Your task to perform on an android device: open device folders in google photos Image 0: 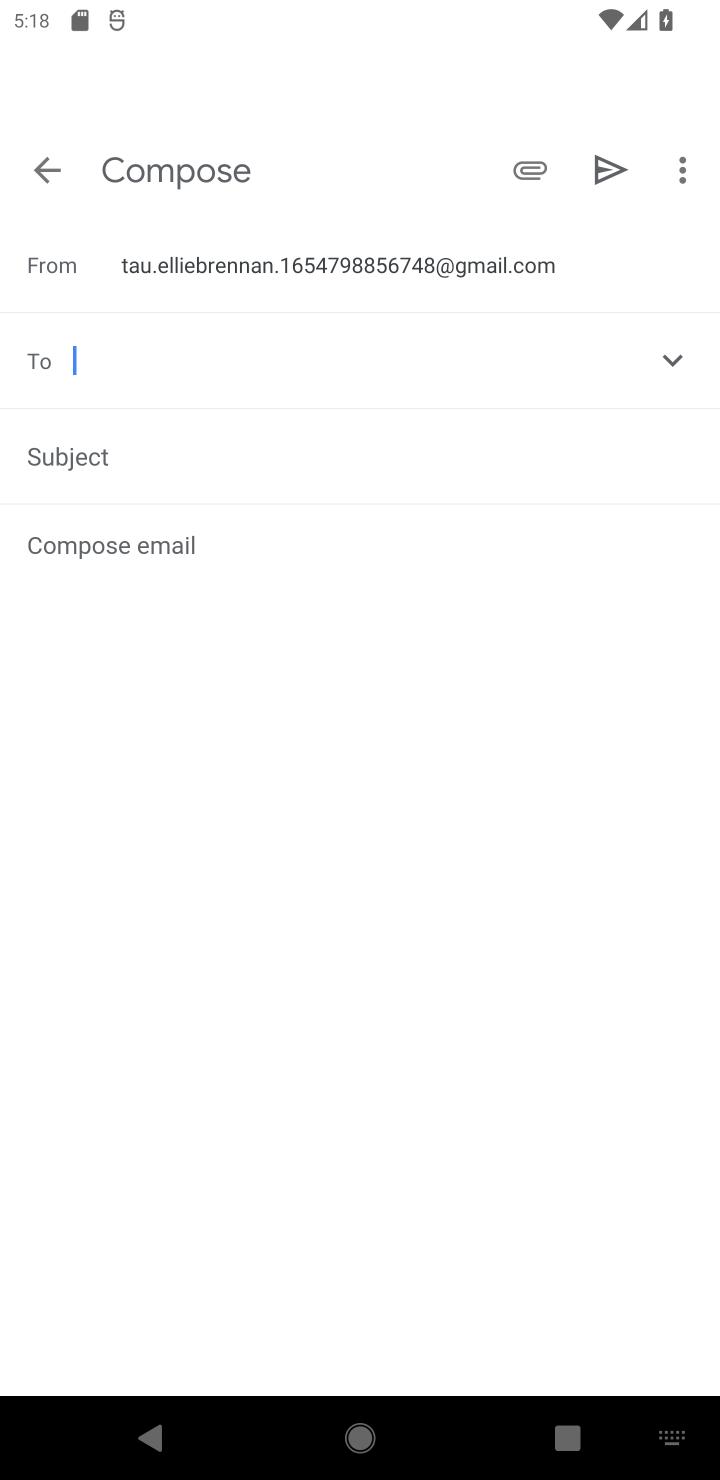
Step 0: press home button
Your task to perform on an android device: open device folders in google photos Image 1: 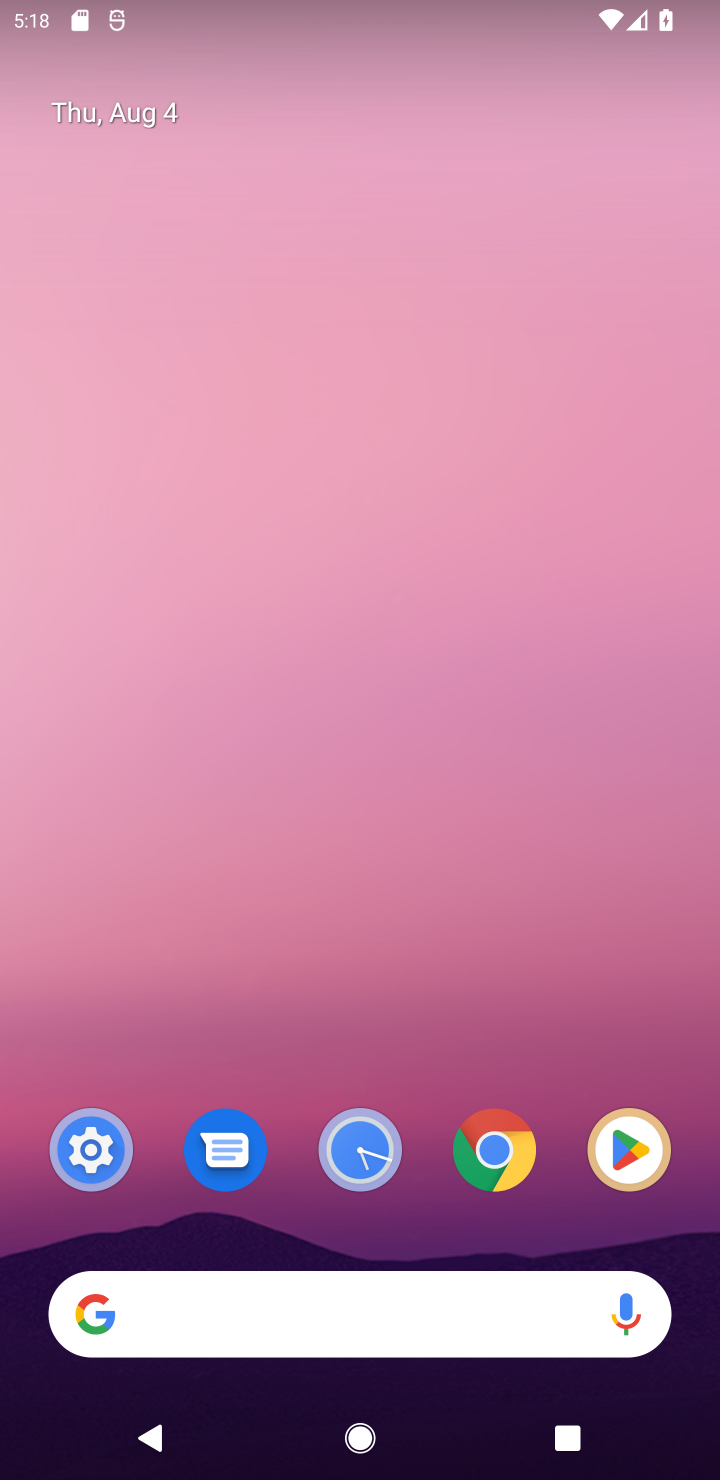
Step 1: drag from (246, 1194) to (284, 0)
Your task to perform on an android device: open device folders in google photos Image 2: 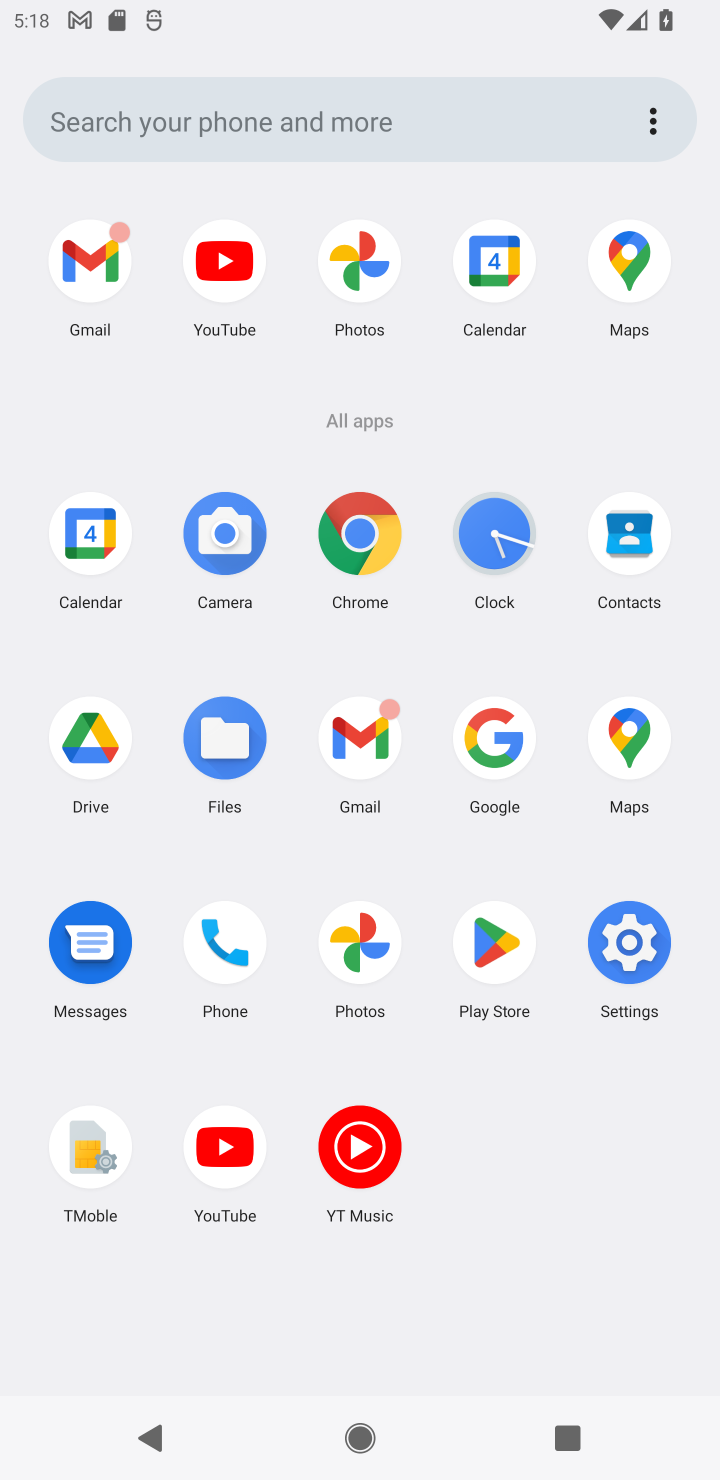
Step 2: click (380, 980)
Your task to perform on an android device: open device folders in google photos Image 3: 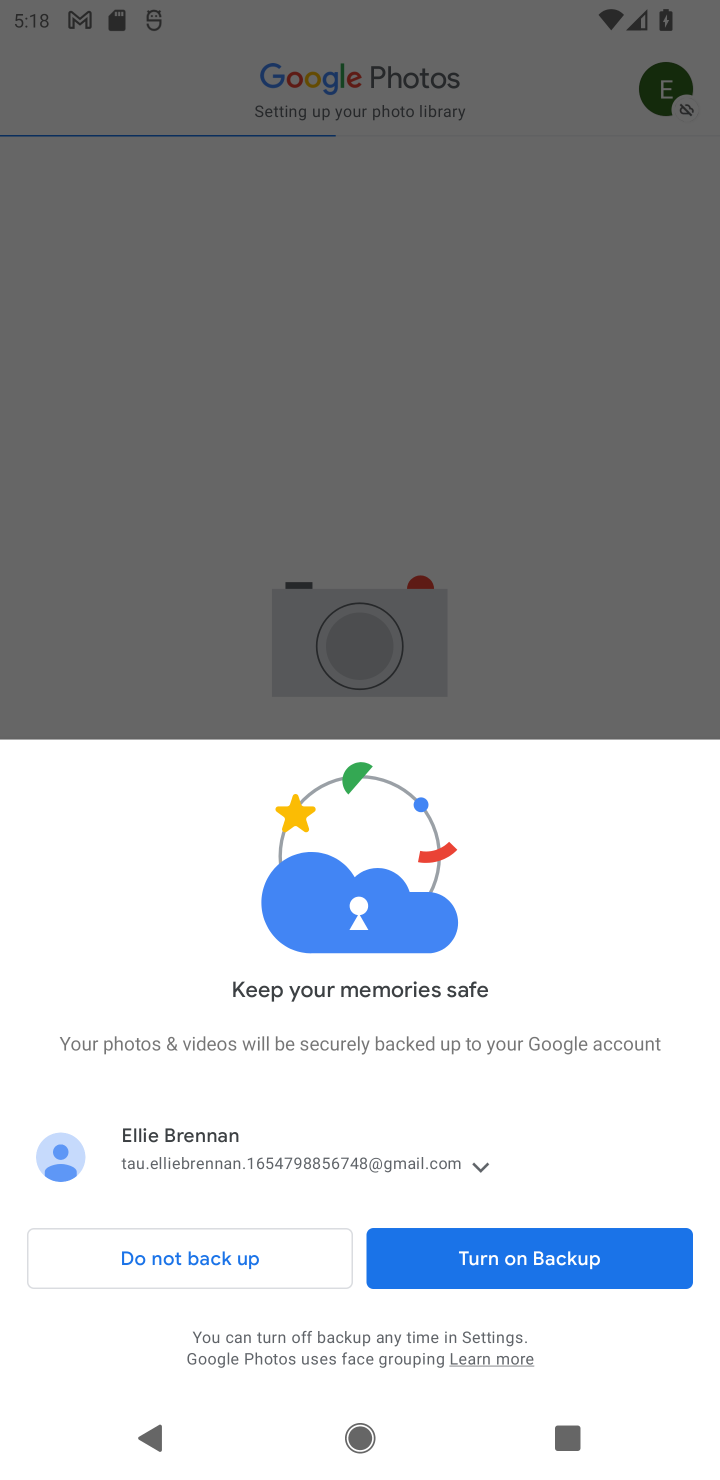
Step 3: click (272, 1251)
Your task to perform on an android device: open device folders in google photos Image 4: 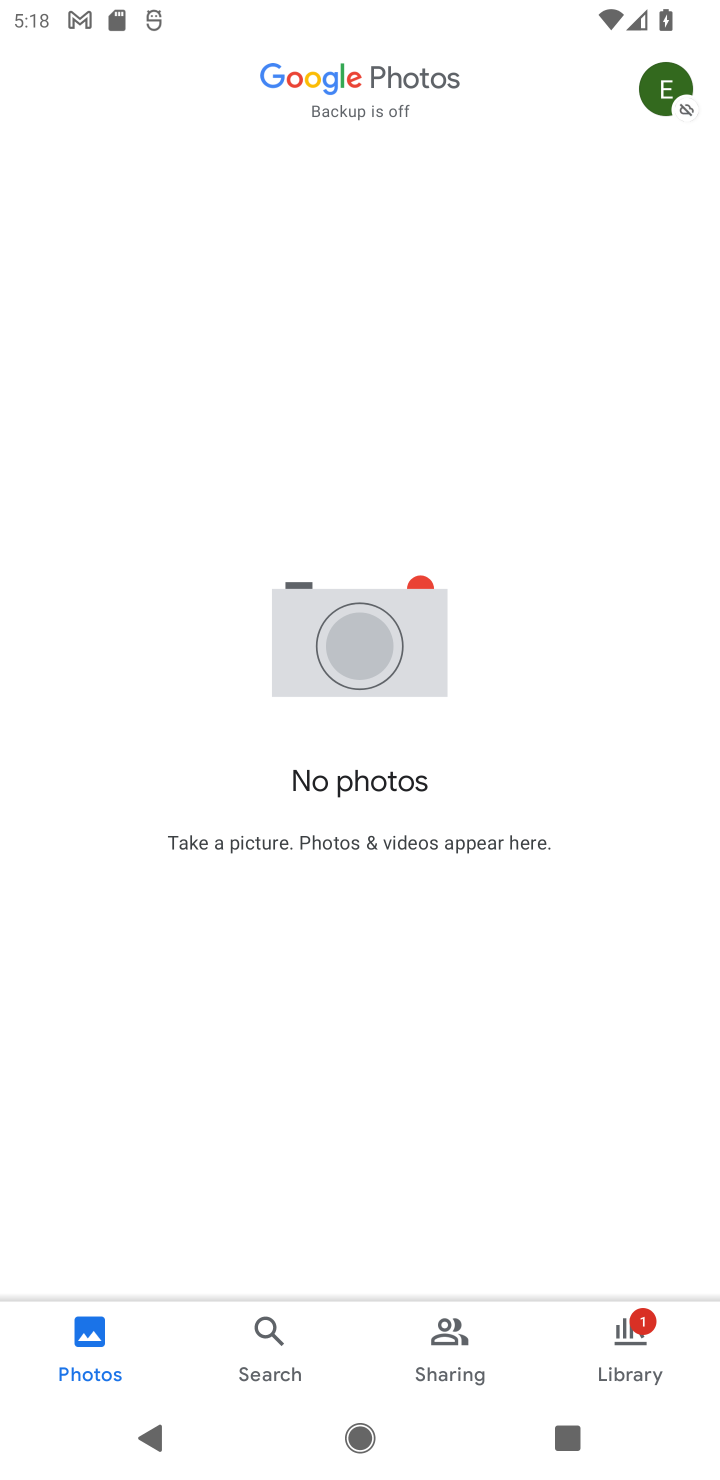
Step 4: click (641, 1327)
Your task to perform on an android device: open device folders in google photos Image 5: 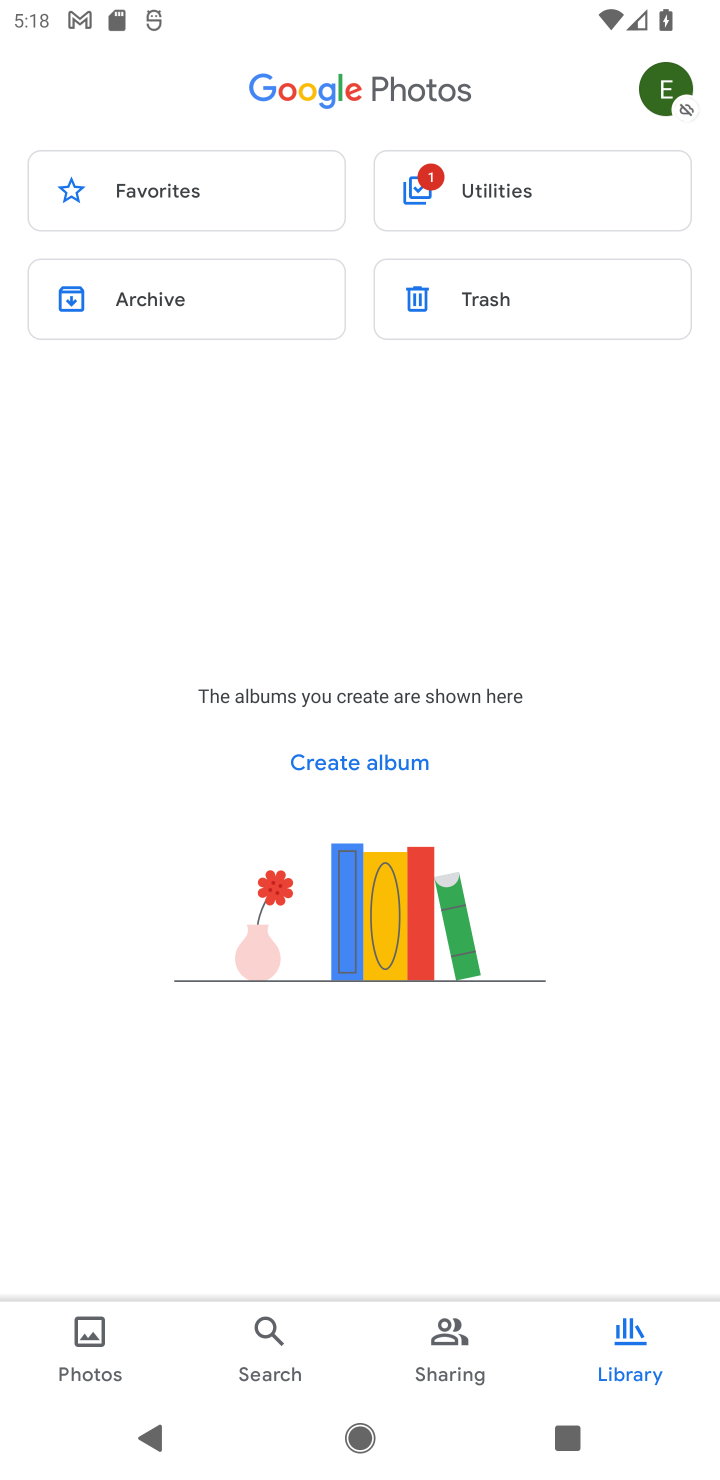
Step 5: task complete